Your task to perform on an android device: turn on bluetooth scan Image 0: 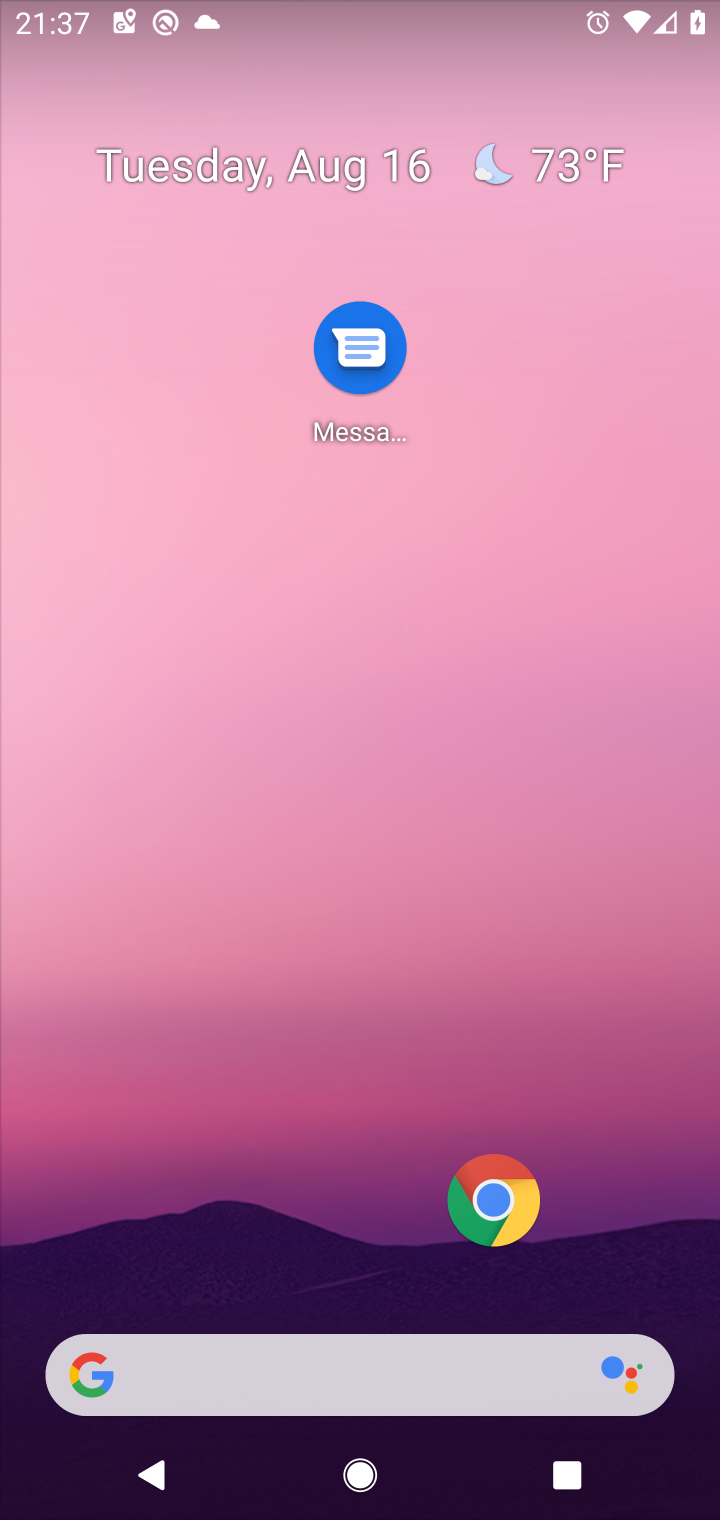
Step 0: drag from (55, 1455) to (540, 469)
Your task to perform on an android device: turn on bluetooth scan Image 1: 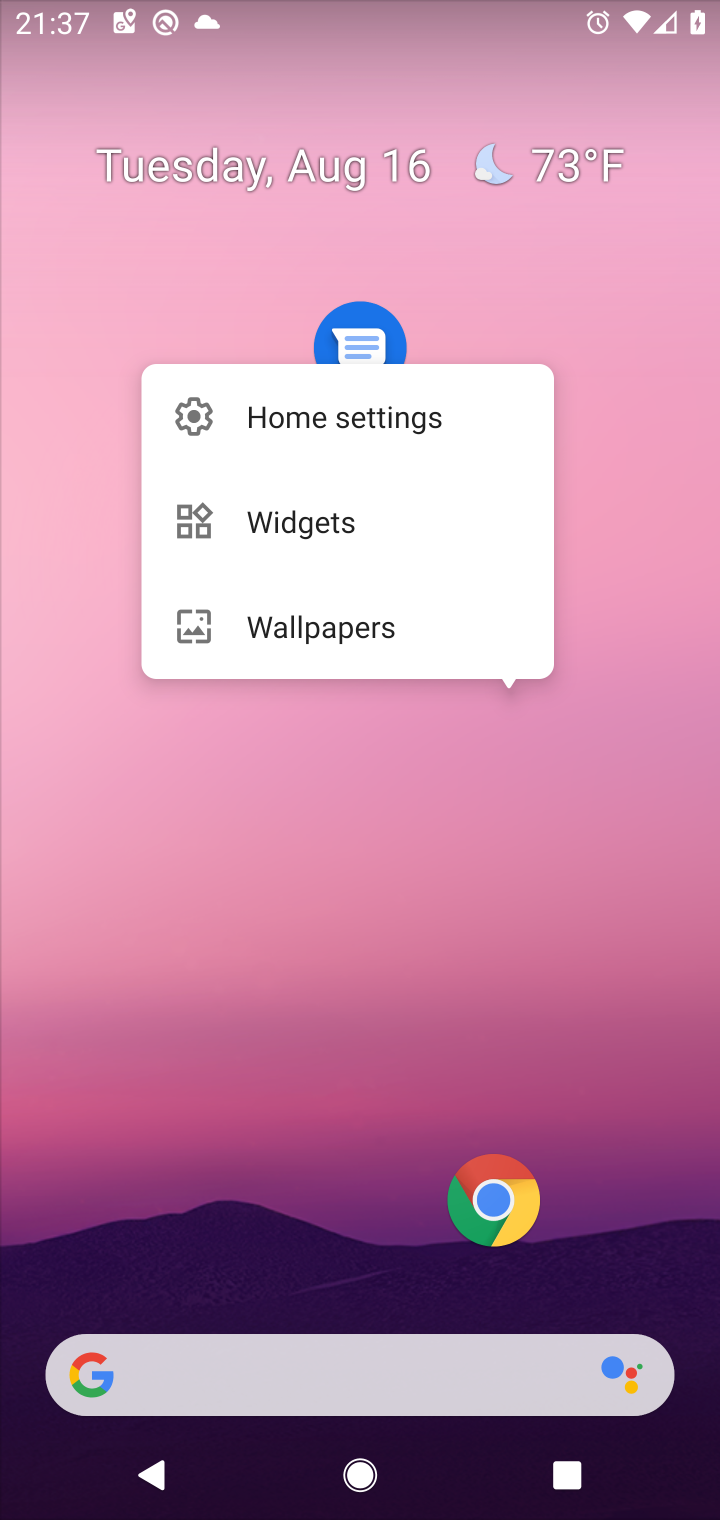
Step 1: click (17, 1477)
Your task to perform on an android device: turn on bluetooth scan Image 2: 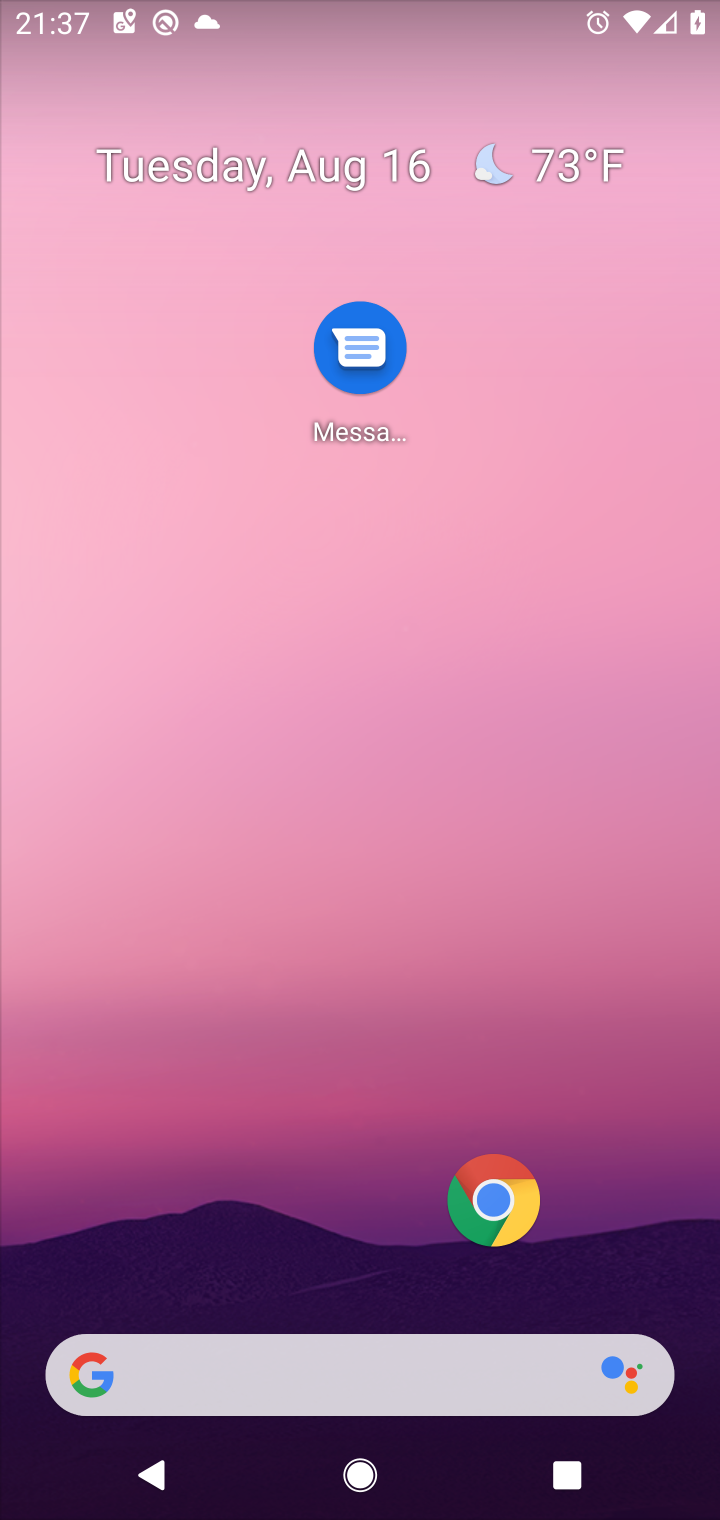
Step 2: task complete